Your task to perform on an android device: move an email to a new category in the gmail app Image 0: 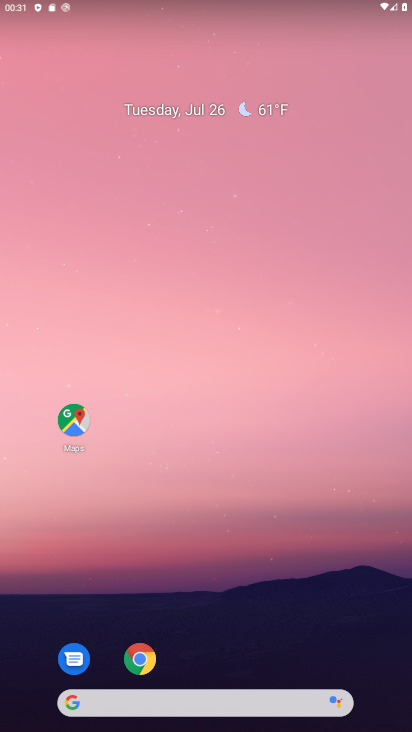
Step 0: drag from (237, 607) to (189, 50)
Your task to perform on an android device: move an email to a new category in the gmail app Image 1: 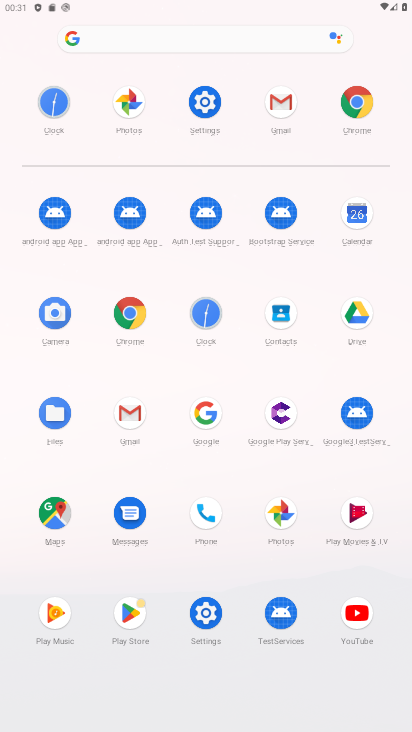
Step 1: click (277, 108)
Your task to perform on an android device: move an email to a new category in the gmail app Image 2: 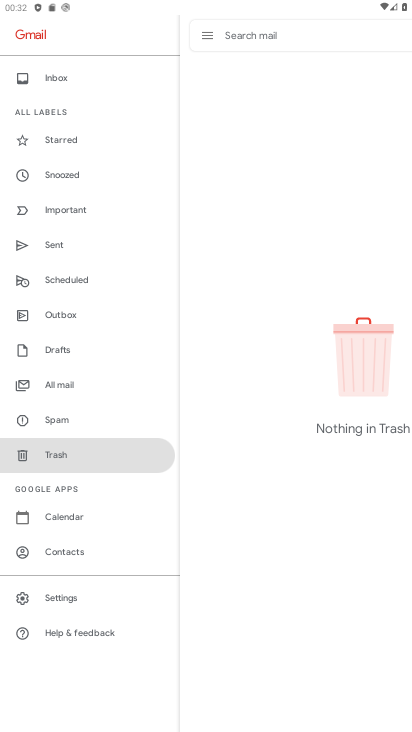
Step 2: click (59, 379)
Your task to perform on an android device: move an email to a new category in the gmail app Image 3: 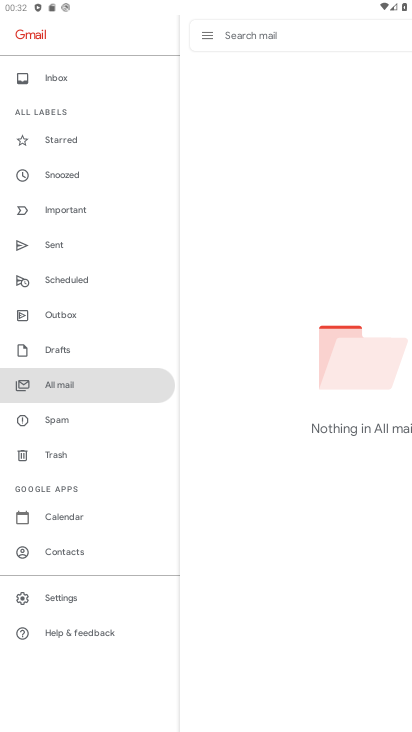
Step 3: task complete